Your task to perform on an android device: Open Reddit.com Image 0: 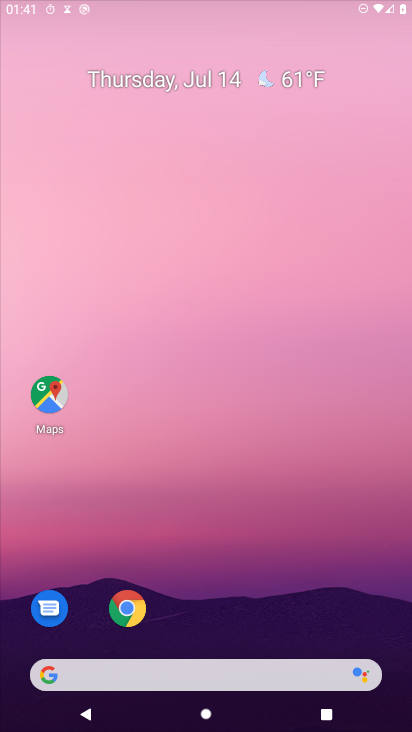
Step 0: press home button
Your task to perform on an android device: Open Reddit.com Image 1: 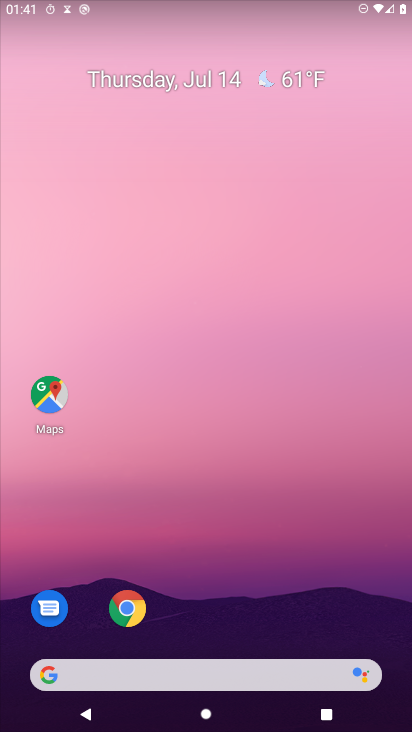
Step 1: click (41, 676)
Your task to perform on an android device: Open Reddit.com Image 2: 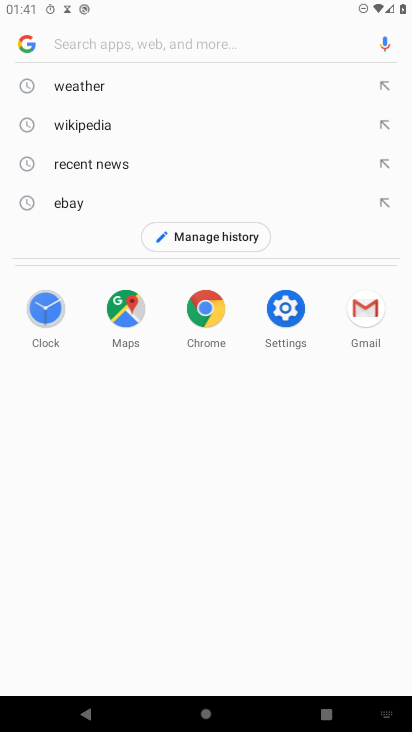
Step 2: type "Reddit.com"
Your task to perform on an android device: Open Reddit.com Image 3: 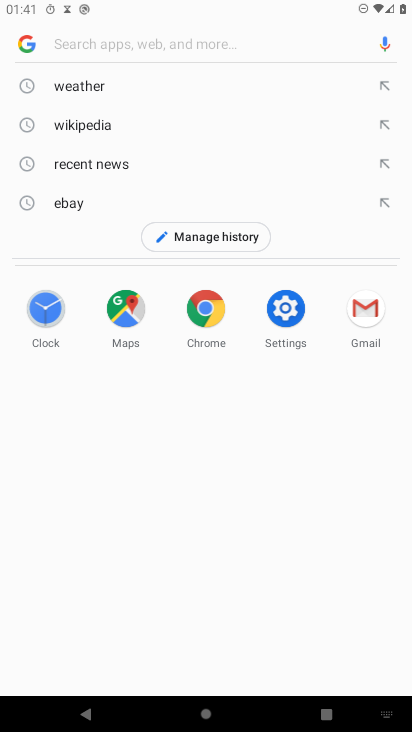
Step 3: click (53, 42)
Your task to perform on an android device: Open Reddit.com Image 4: 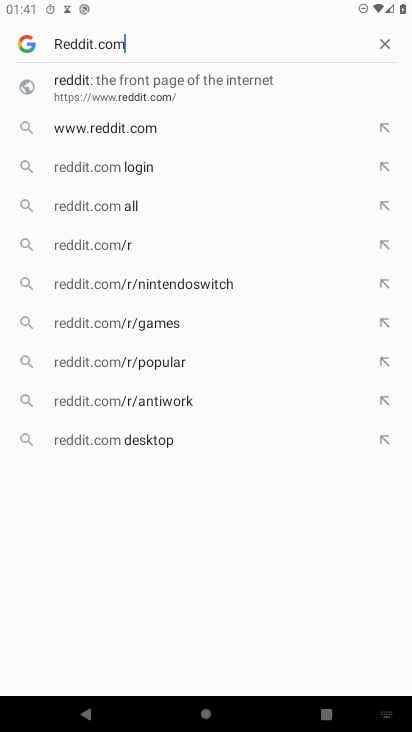
Step 4: click (109, 123)
Your task to perform on an android device: Open Reddit.com Image 5: 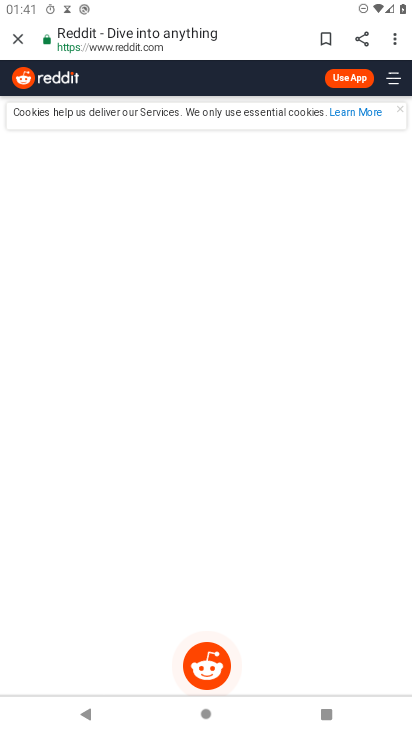
Step 5: task complete